Your task to perform on an android device: Go to location settings Image 0: 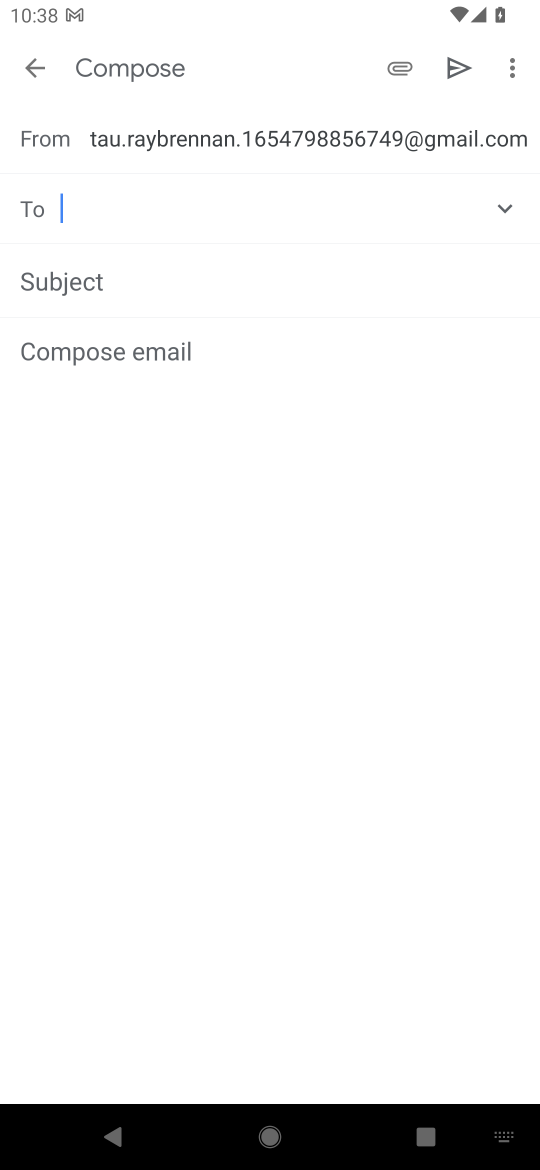
Step 0: press home button
Your task to perform on an android device: Go to location settings Image 1: 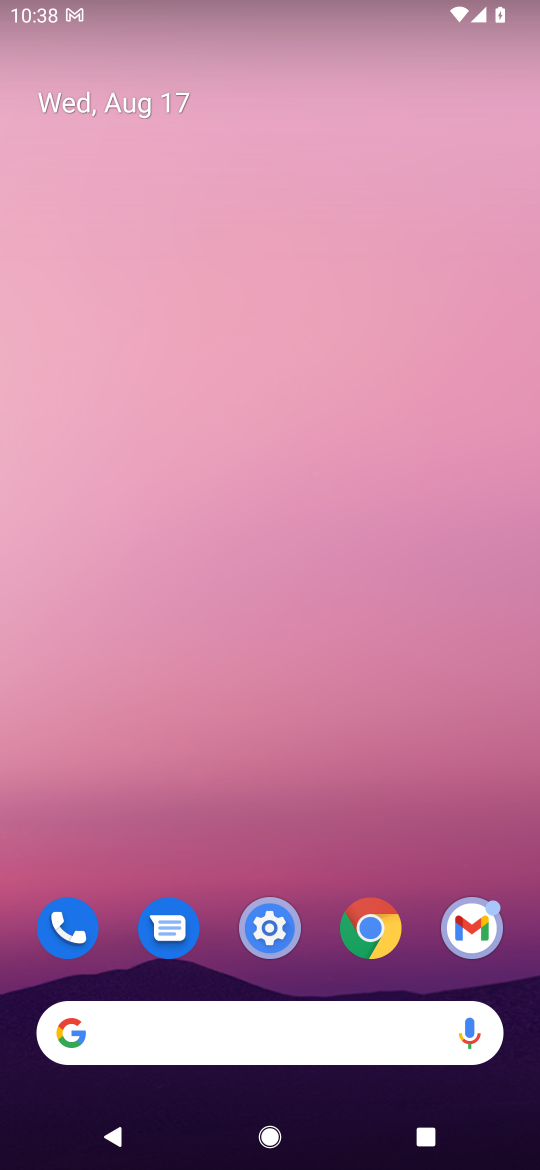
Step 1: drag from (339, 859) to (253, 299)
Your task to perform on an android device: Go to location settings Image 2: 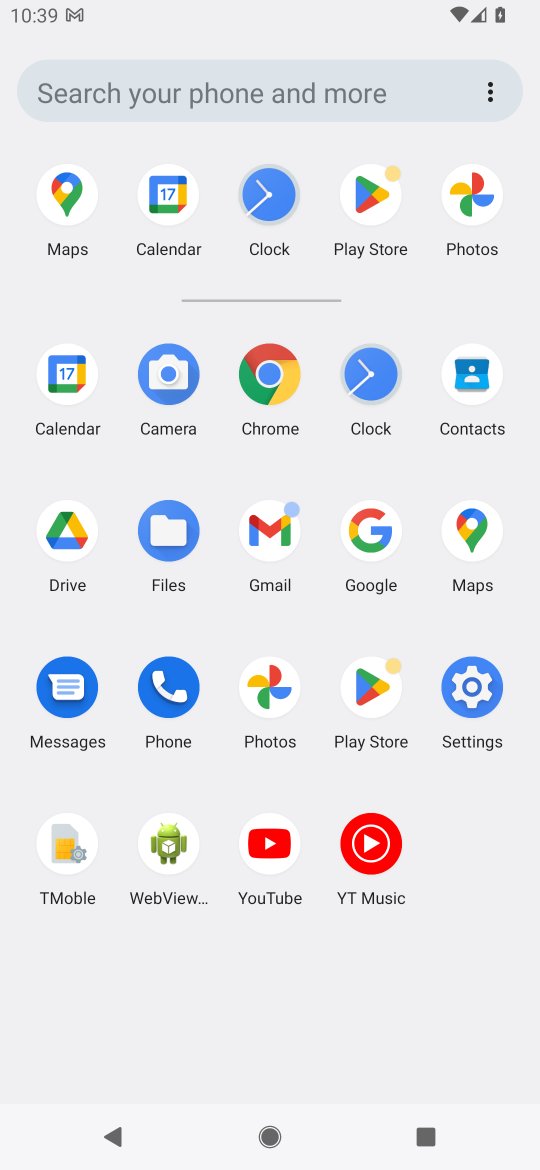
Step 2: click (470, 670)
Your task to perform on an android device: Go to location settings Image 3: 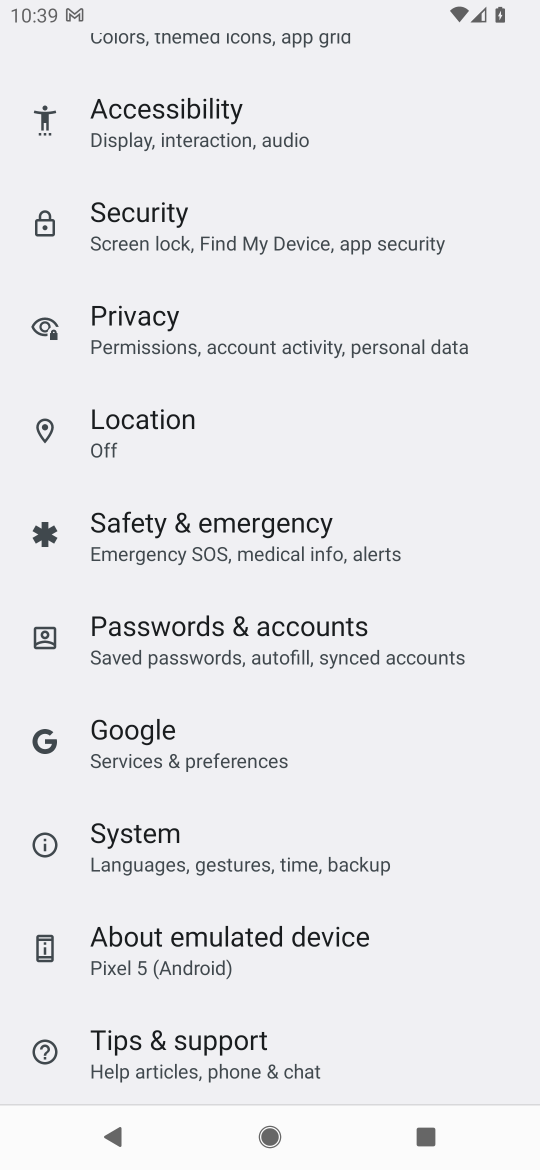
Step 3: click (141, 426)
Your task to perform on an android device: Go to location settings Image 4: 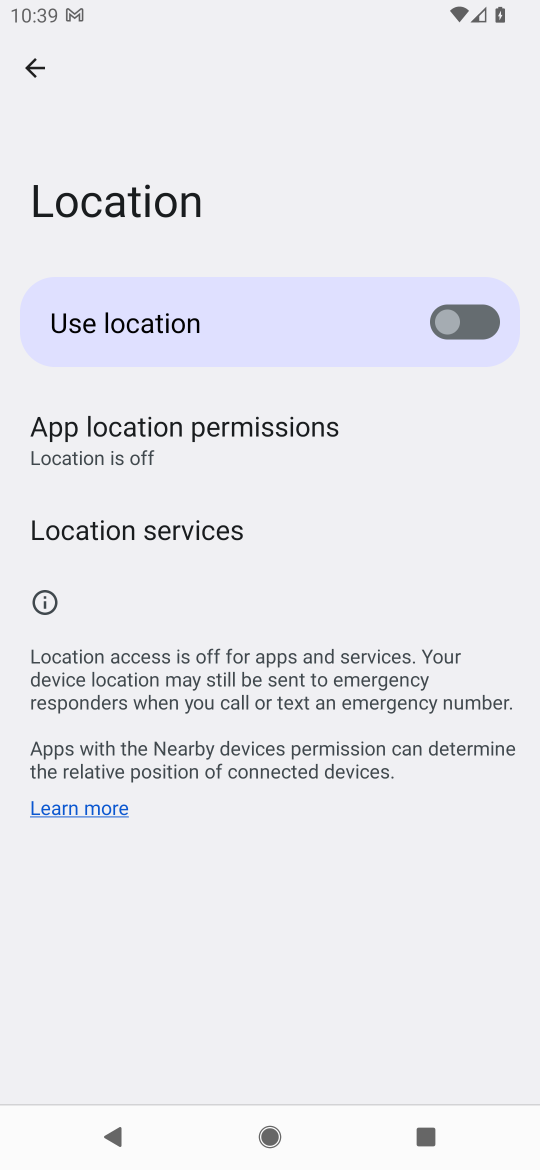
Step 4: task complete